Your task to perform on an android device: move a message to another label in the gmail app Image 0: 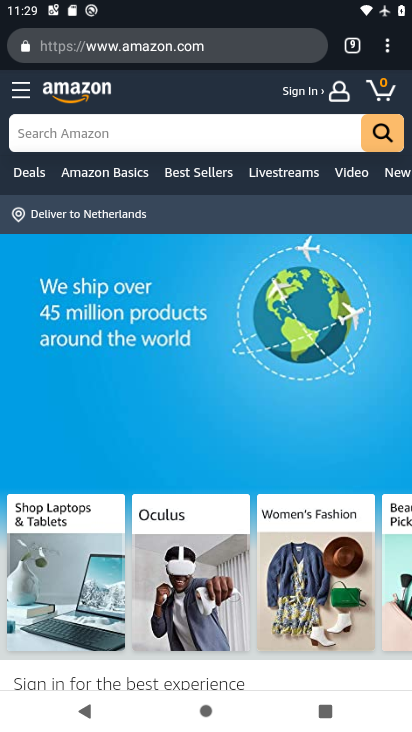
Step 0: press home button
Your task to perform on an android device: move a message to another label in the gmail app Image 1: 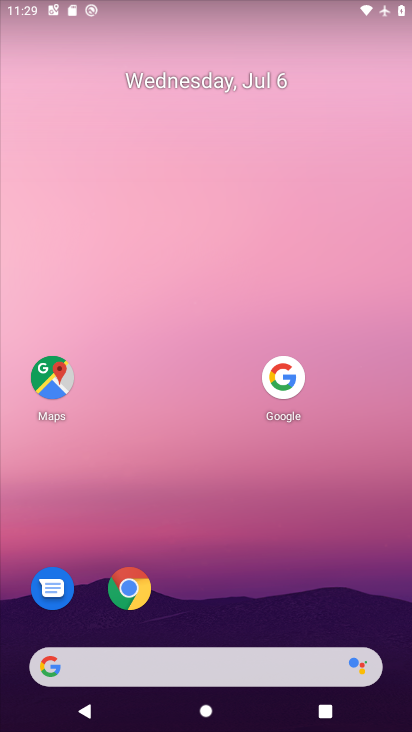
Step 1: drag from (174, 674) to (267, 77)
Your task to perform on an android device: move a message to another label in the gmail app Image 2: 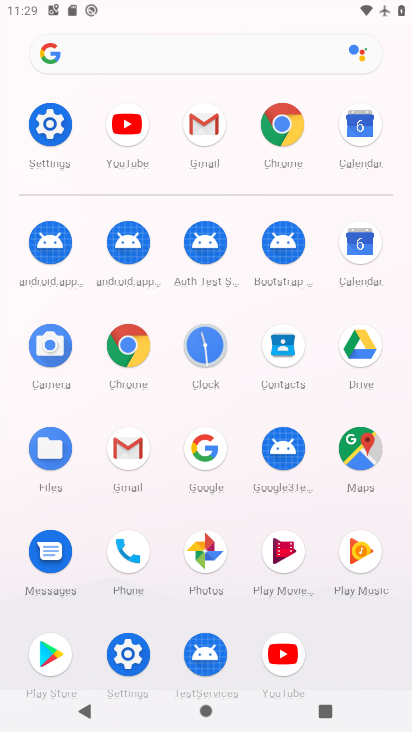
Step 2: click (206, 133)
Your task to perform on an android device: move a message to another label in the gmail app Image 3: 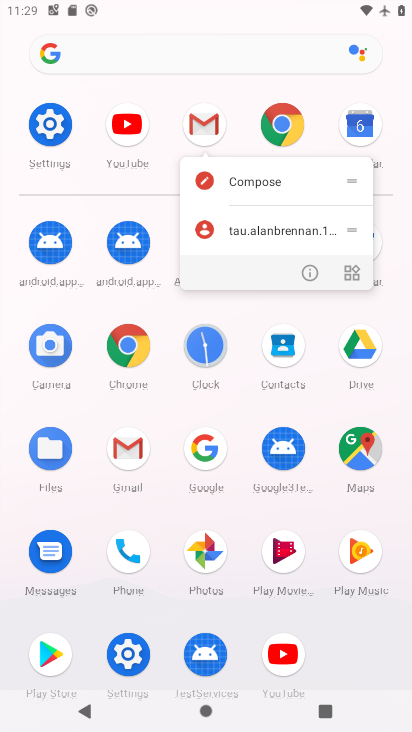
Step 3: click (202, 119)
Your task to perform on an android device: move a message to another label in the gmail app Image 4: 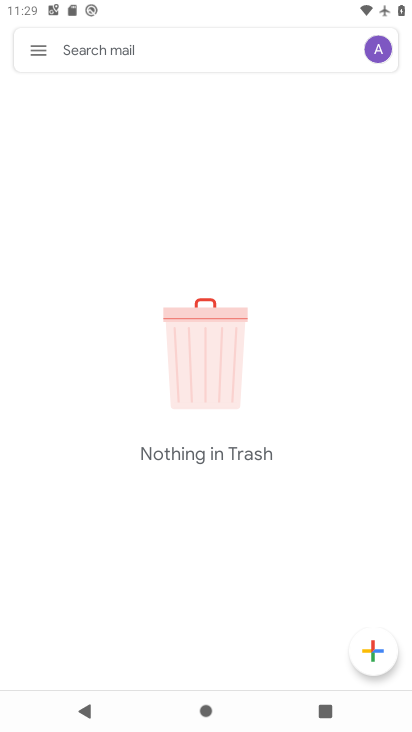
Step 4: click (39, 43)
Your task to perform on an android device: move a message to another label in the gmail app Image 5: 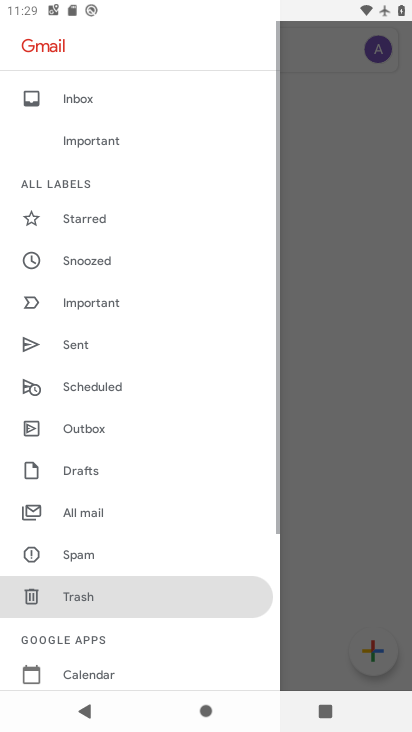
Step 5: click (69, 97)
Your task to perform on an android device: move a message to another label in the gmail app Image 6: 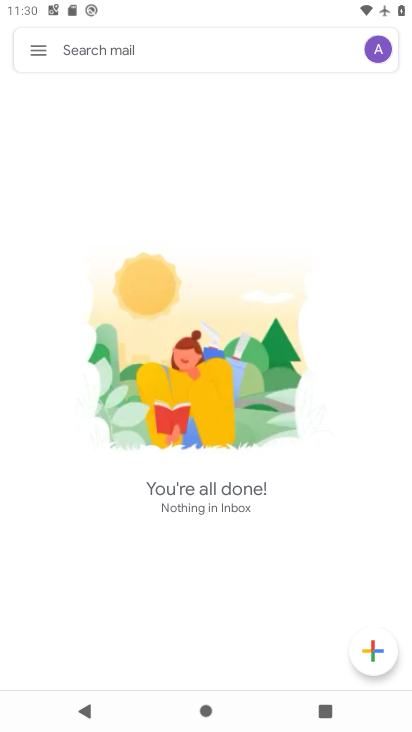
Step 6: task complete